Your task to perform on an android device: check out phone information Image 0: 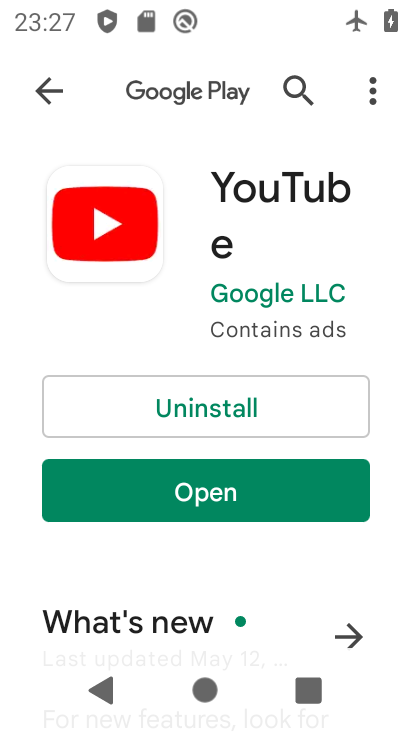
Step 0: press home button
Your task to perform on an android device: check out phone information Image 1: 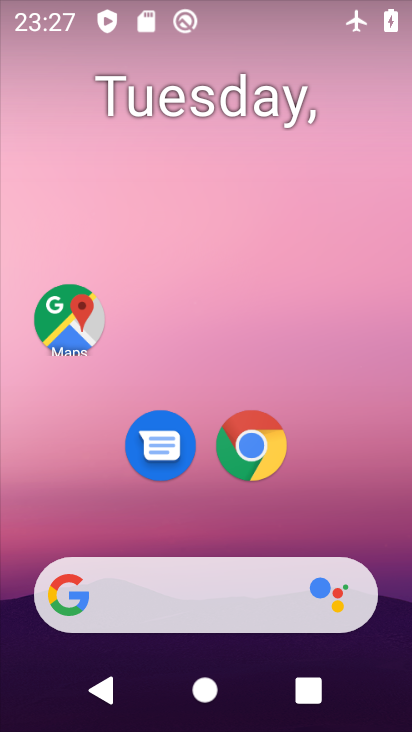
Step 1: drag from (221, 531) to (303, 4)
Your task to perform on an android device: check out phone information Image 2: 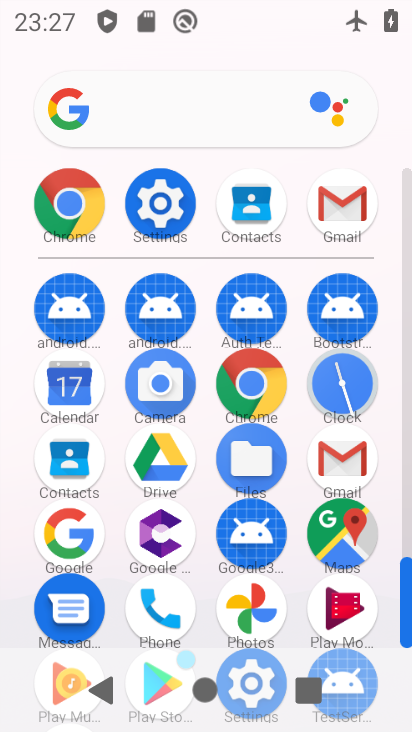
Step 2: click (155, 199)
Your task to perform on an android device: check out phone information Image 3: 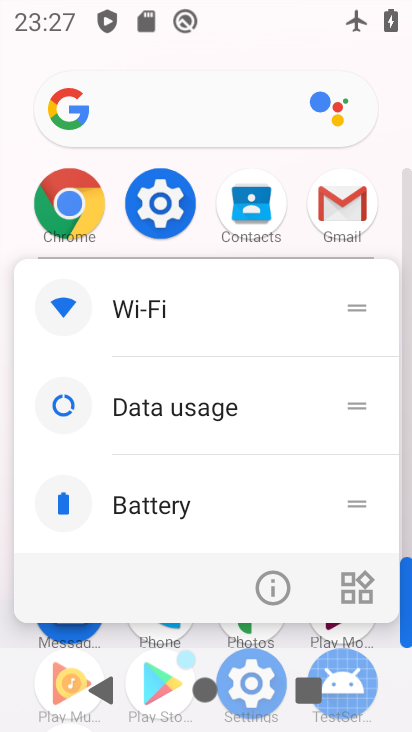
Step 3: click (159, 205)
Your task to perform on an android device: check out phone information Image 4: 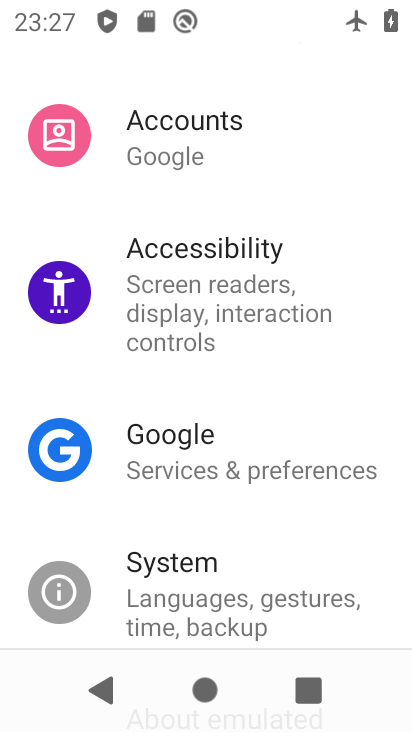
Step 4: drag from (219, 571) to (220, 255)
Your task to perform on an android device: check out phone information Image 5: 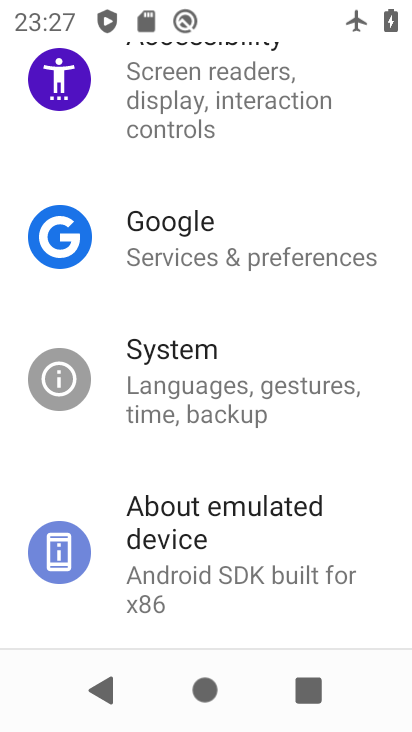
Step 5: click (182, 565)
Your task to perform on an android device: check out phone information Image 6: 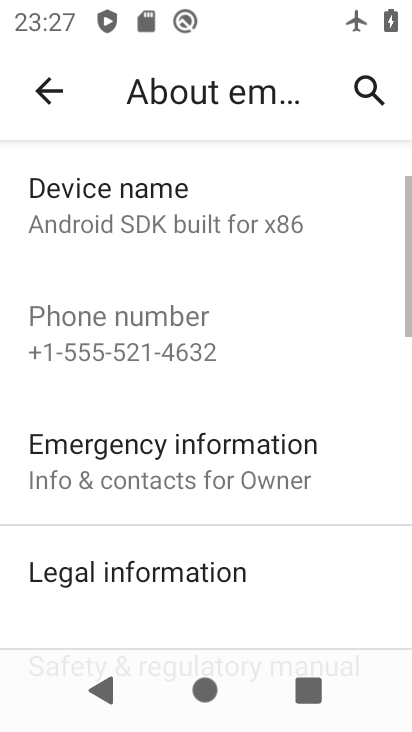
Step 6: task complete